Your task to perform on an android device: add a contact Image 0: 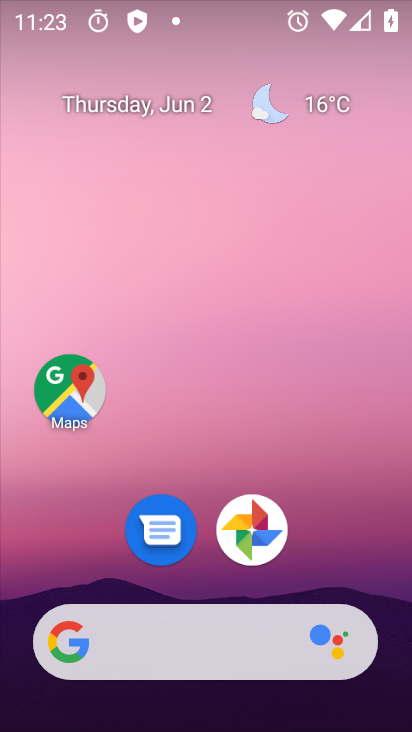
Step 0: drag from (242, 688) to (63, 5)
Your task to perform on an android device: add a contact Image 1: 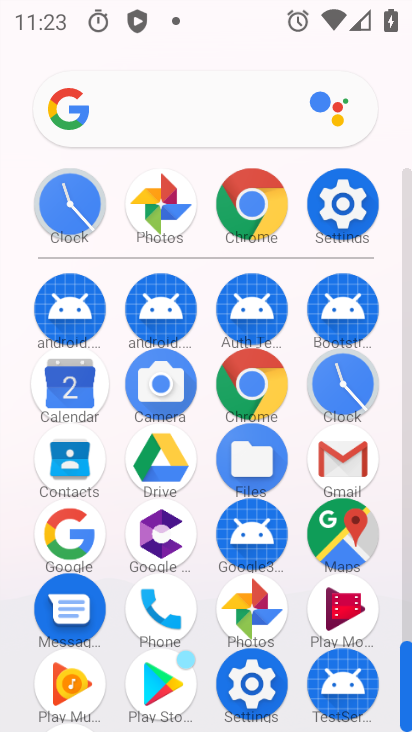
Step 1: click (57, 472)
Your task to perform on an android device: add a contact Image 2: 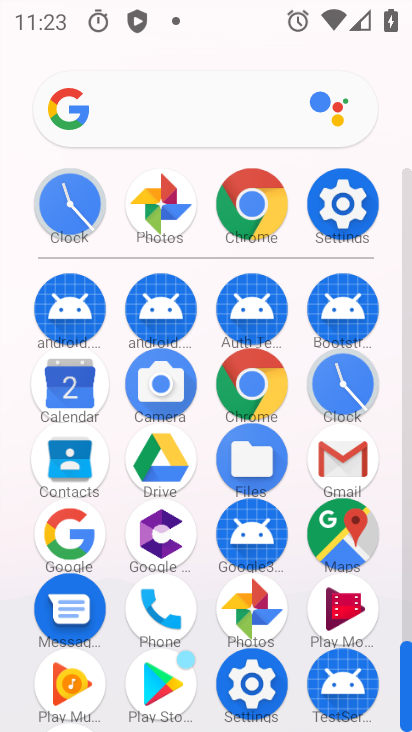
Step 2: click (59, 455)
Your task to perform on an android device: add a contact Image 3: 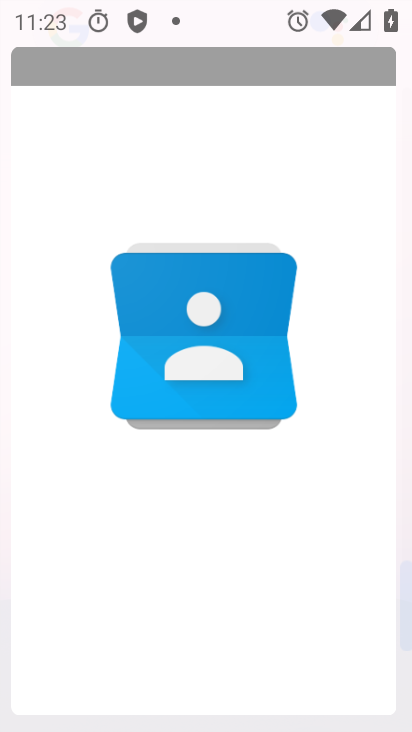
Step 3: click (59, 455)
Your task to perform on an android device: add a contact Image 4: 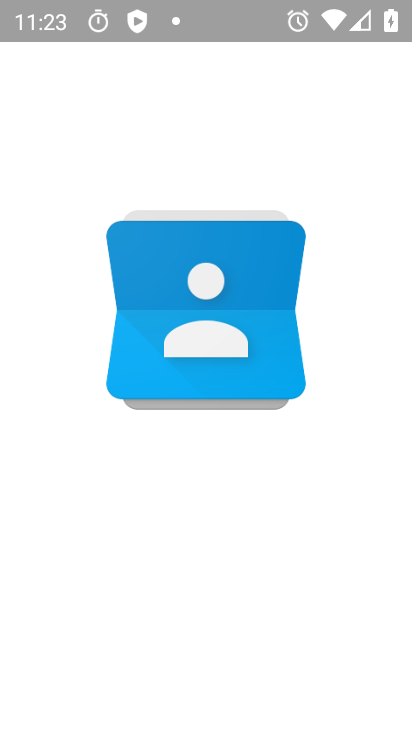
Step 4: click (59, 455)
Your task to perform on an android device: add a contact Image 5: 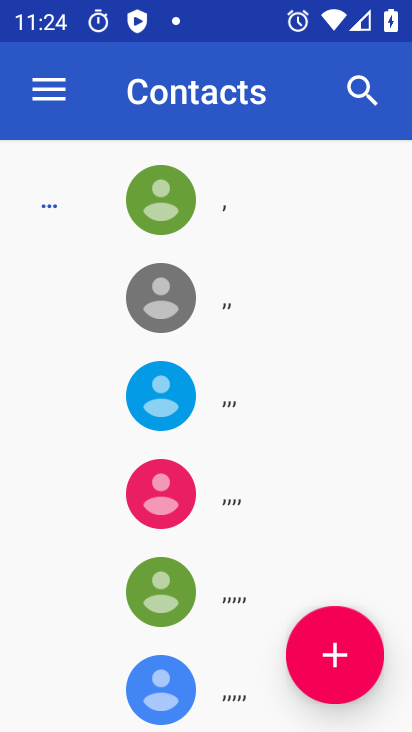
Step 5: click (329, 632)
Your task to perform on an android device: add a contact Image 6: 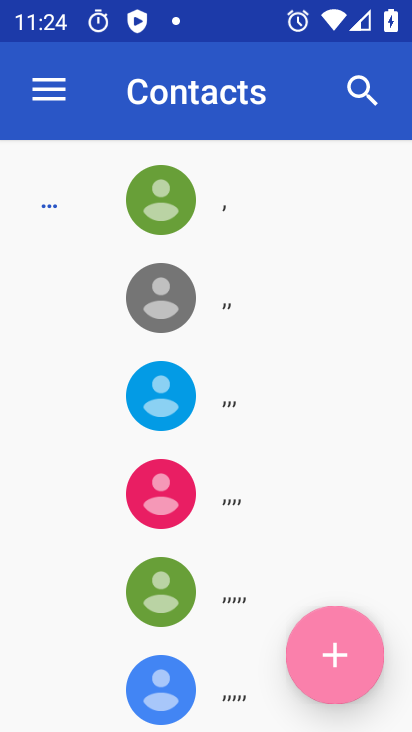
Step 6: click (327, 650)
Your task to perform on an android device: add a contact Image 7: 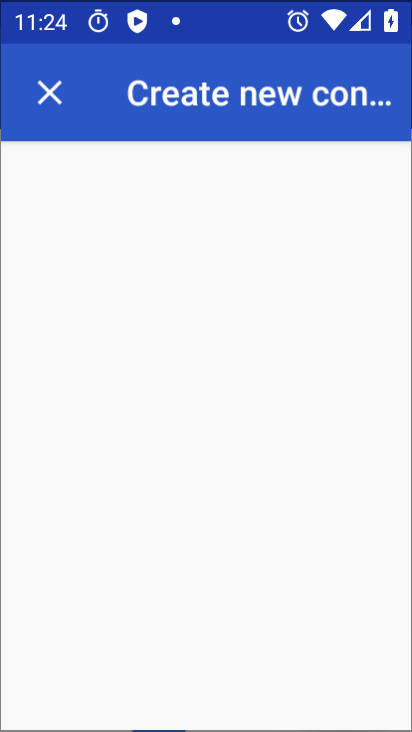
Step 7: click (329, 652)
Your task to perform on an android device: add a contact Image 8: 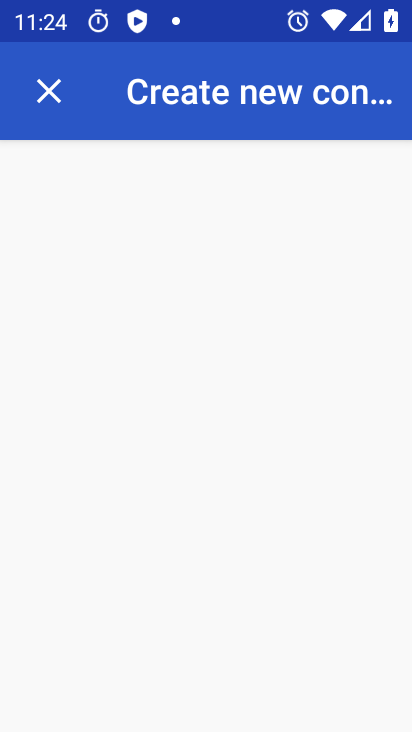
Step 8: click (338, 644)
Your task to perform on an android device: add a contact Image 9: 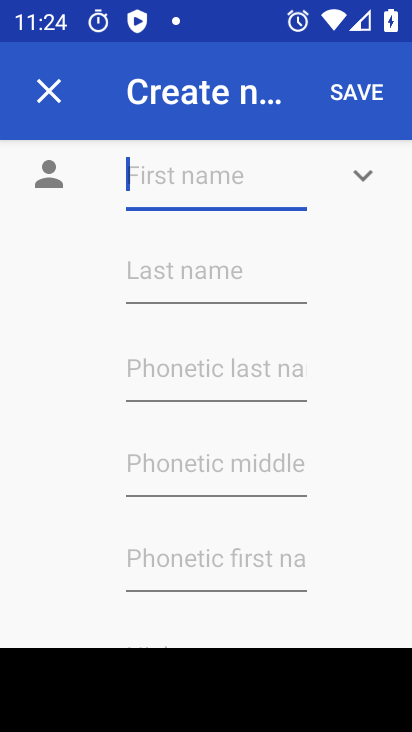
Step 9: type "dgcdgfiu"
Your task to perform on an android device: add a contact Image 10: 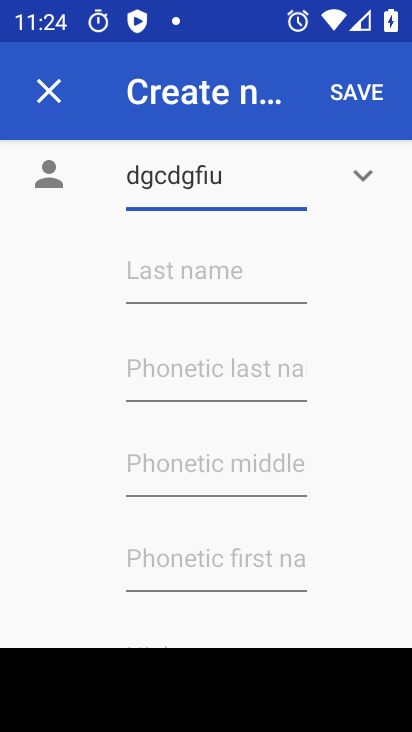
Step 10: click (163, 376)
Your task to perform on an android device: add a contact Image 11: 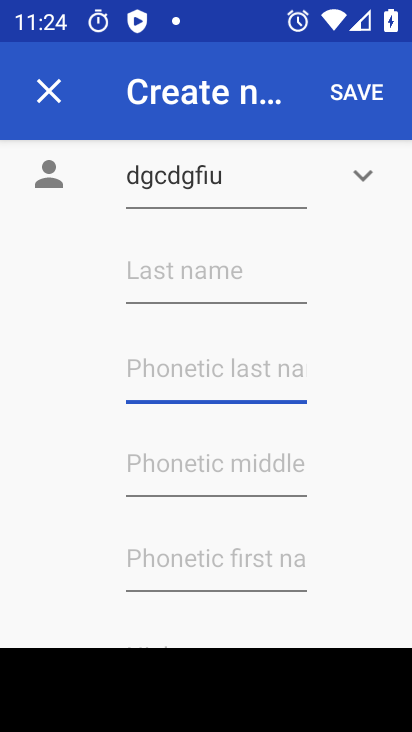
Step 11: click (163, 376)
Your task to perform on an android device: add a contact Image 12: 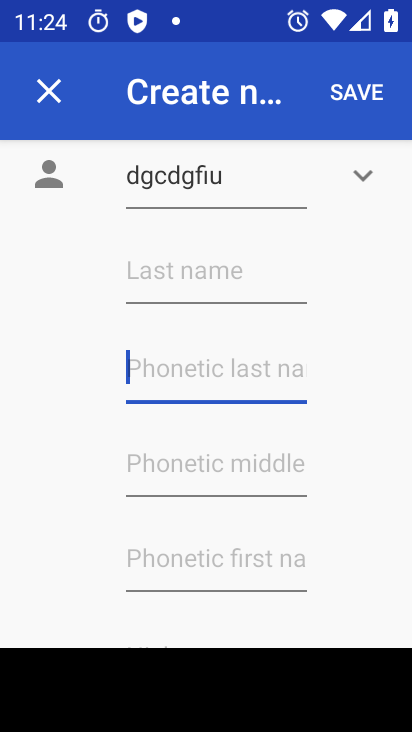
Step 12: type "7984567898"
Your task to perform on an android device: add a contact Image 13: 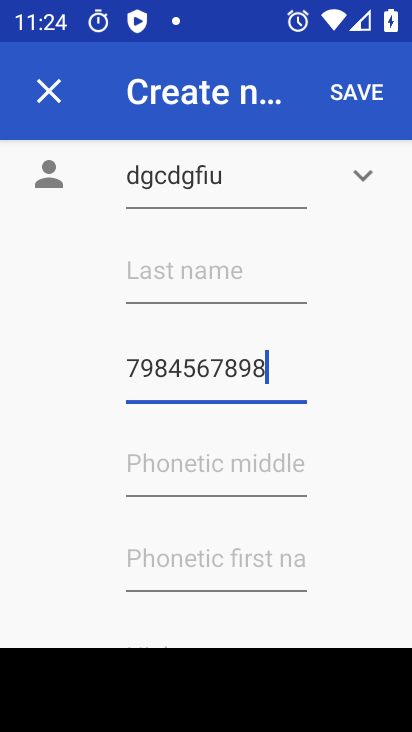
Step 13: click (338, 88)
Your task to perform on an android device: add a contact Image 14: 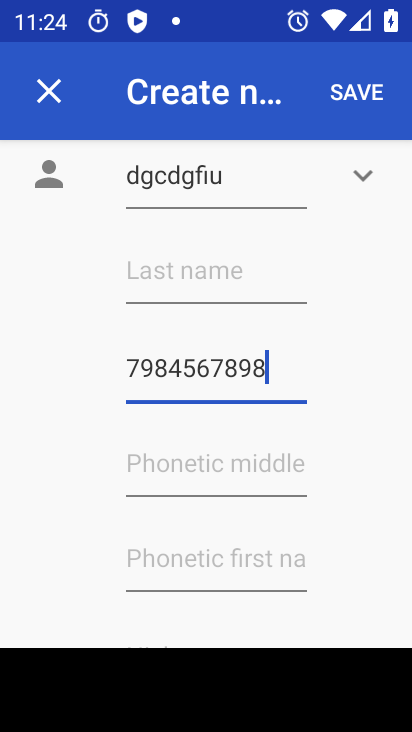
Step 14: click (338, 87)
Your task to perform on an android device: add a contact Image 15: 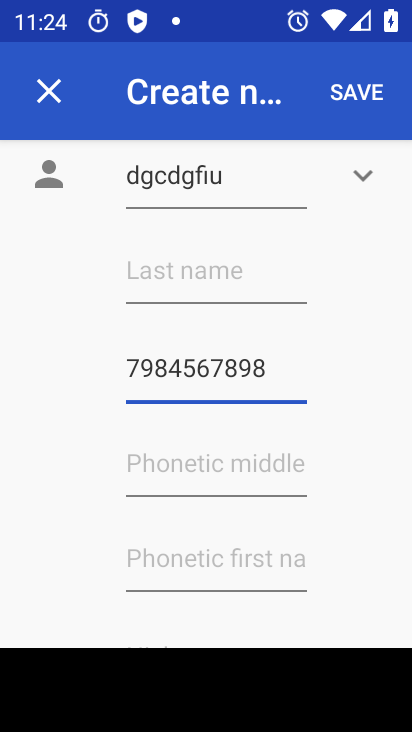
Step 15: click (338, 86)
Your task to perform on an android device: add a contact Image 16: 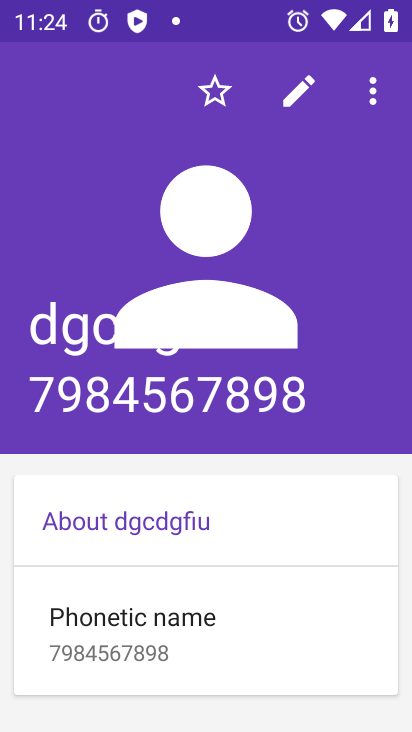
Step 16: task complete